Your task to perform on an android device: turn off picture-in-picture Image 0: 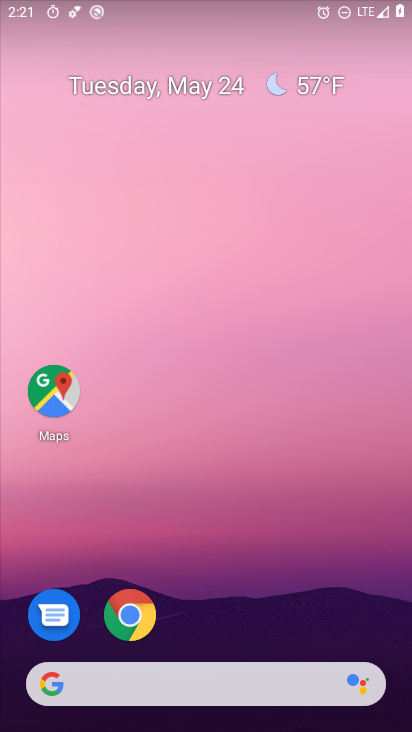
Step 0: click (137, 613)
Your task to perform on an android device: turn off picture-in-picture Image 1: 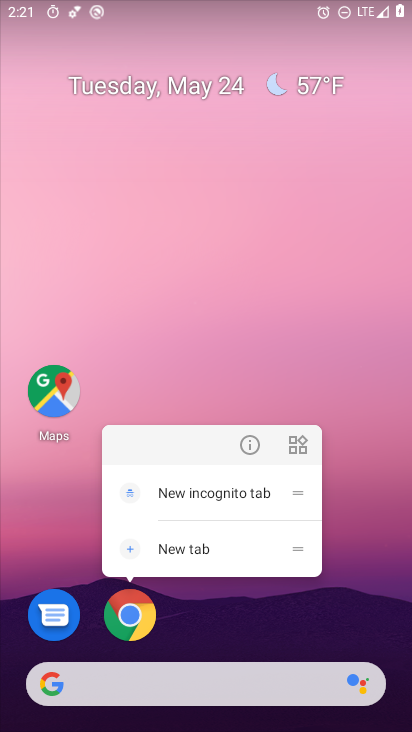
Step 1: click (245, 442)
Your task to perform on an android device: turn off picture-in-picture Image 2: 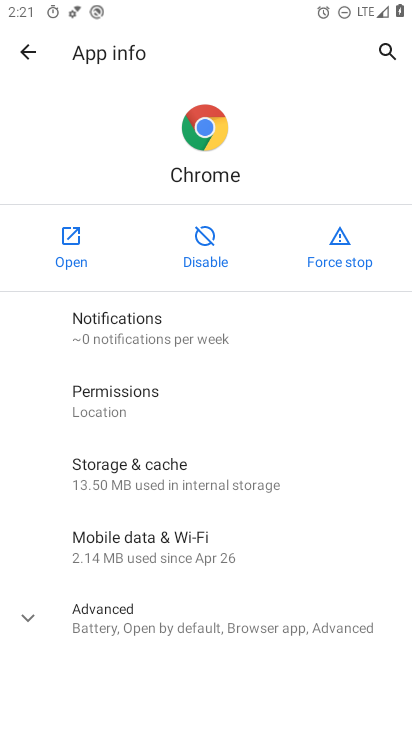
Step 2: click (206, 610)
Your task to perform on an android device: turn off picture-in-picture Image 3: 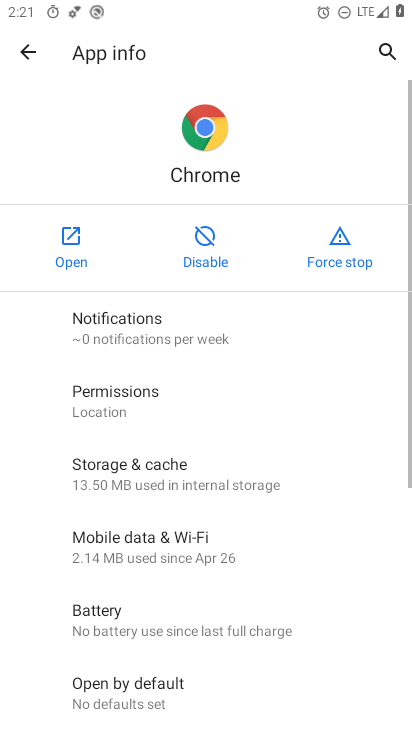
Step 3: drag from (288, 593) to (298, 172)
Your task to perform on an android device: turn off picture-in-picture Image 4: 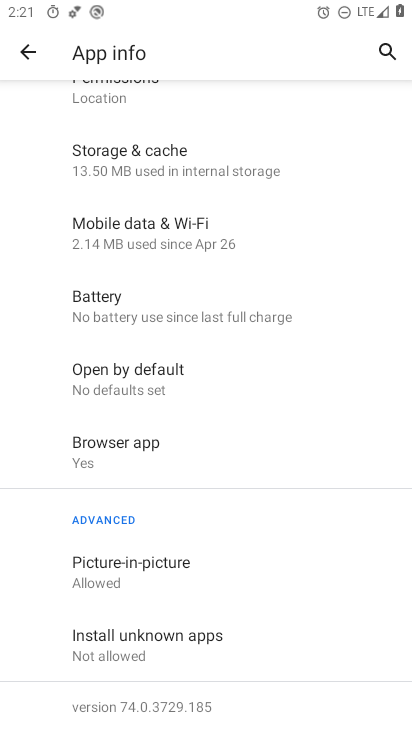
Step 4: click (125, 571)
Your task to perform on an android device: turn off picture-in-picture Image 5: 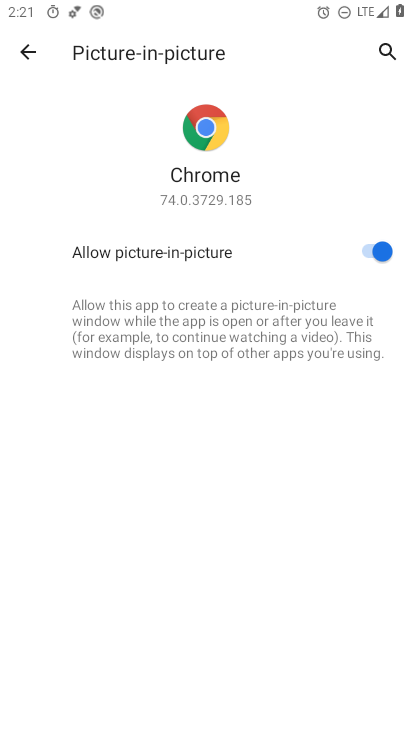
Step 5: click (368, 247)
Your task to perform on an android device: turn off picture-in-picture Image 6: 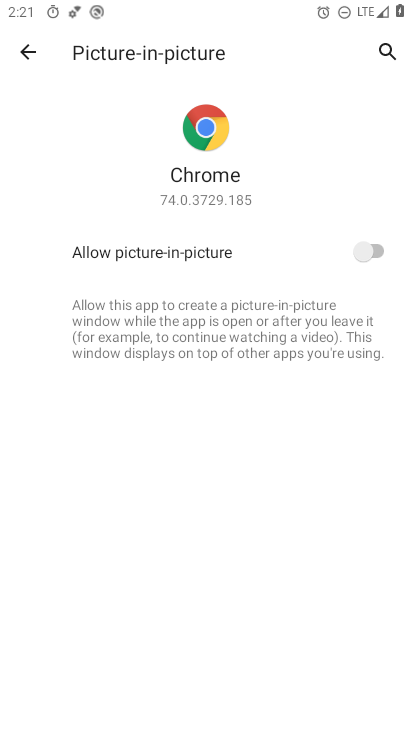
Step 6: task complete